Your task to perform on an android device: Open Wikipedia Image 0: 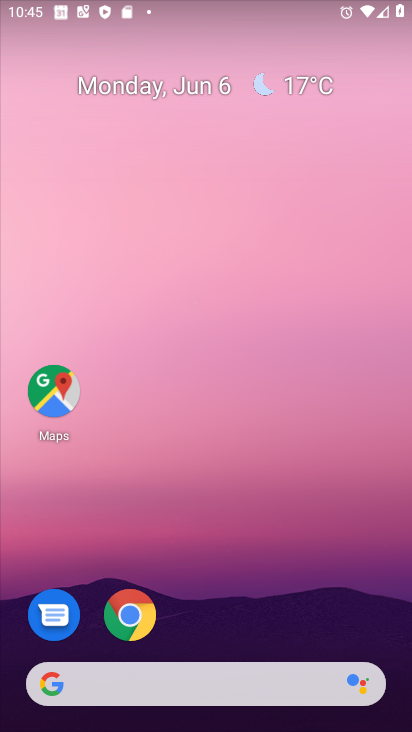
Step 0: press home button
Your task to perform on an android device: Open Wikipedia Image 1: 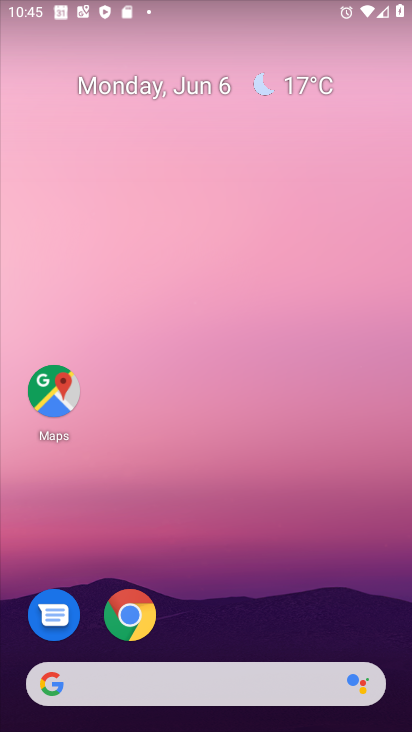
Step 1: click (126, 607)
Your task to perform on an android device: Open Wikipedia Image 2: 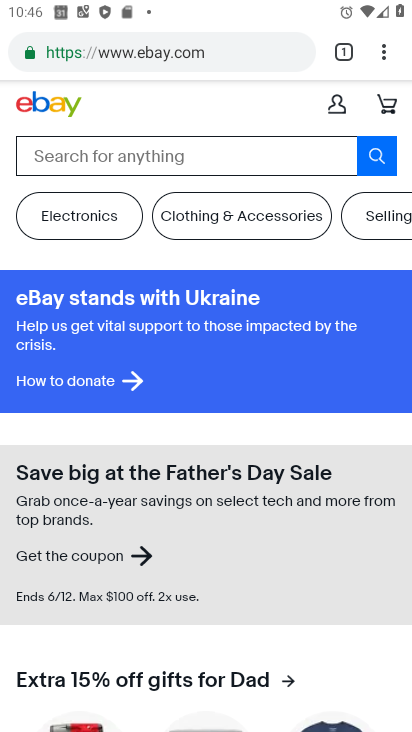
Step 2: click (344, 44)
Your task to perform on an android device: Open Wikipedia Image 3: 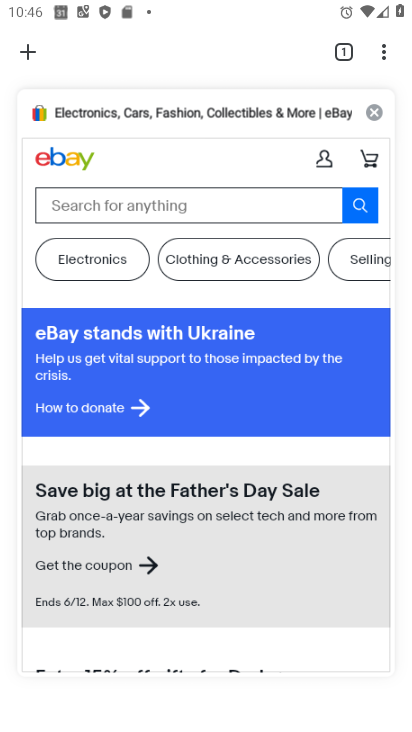
Step 3: click (373, 111)
Your task to perform on an android device: Open Wikipedia Image 4: 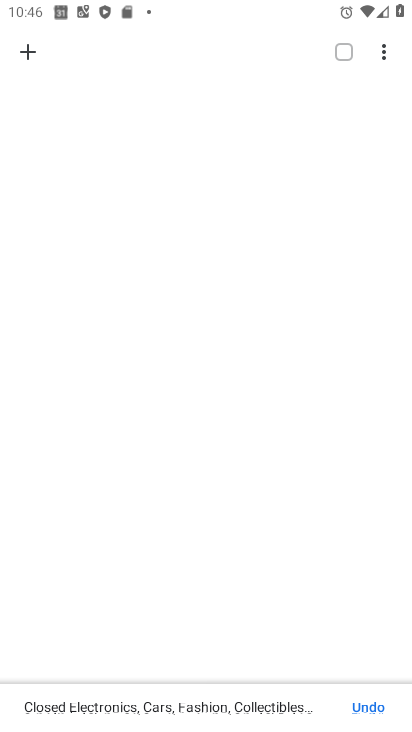
Step 4: click (30, 50)
Your task to perform on an android device: Open Wikipedia Image 5: 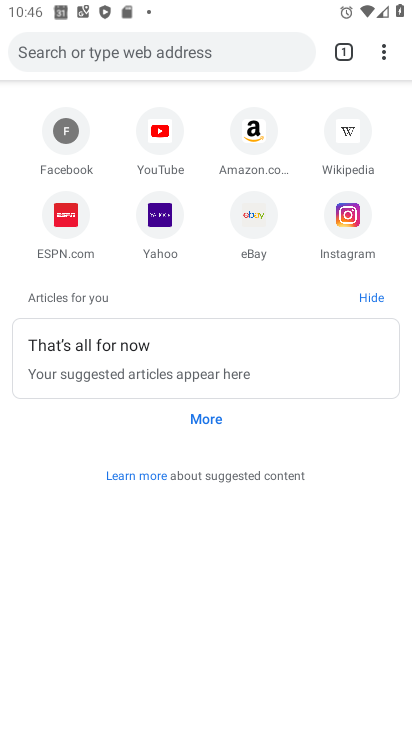
Step 5: click (343, 123)
Your task to perform on an android device: Open Wikipedia Image 6: 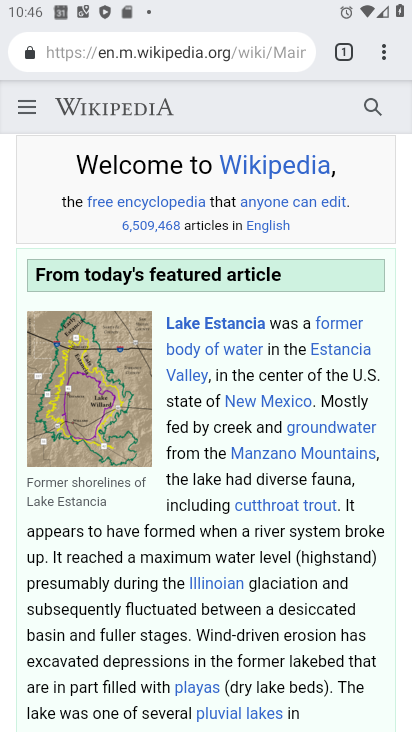
Step 6: task complete